Your task to perform on an android device: turn on sleep mode Image 0: 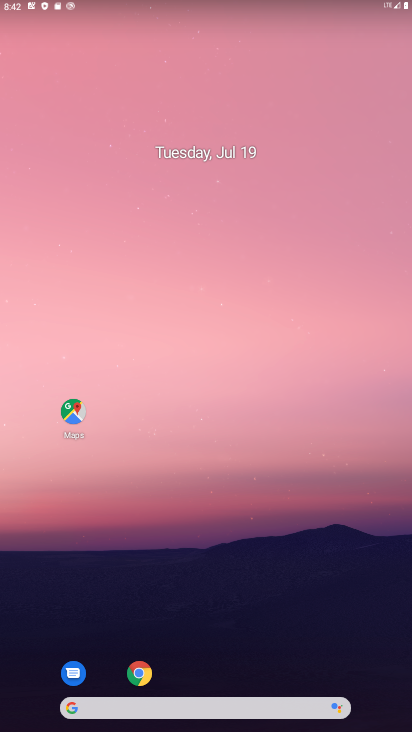
Step 0: drag from (330, 665) to (200, 24)
Your task to perform on an android device: turn on sleep mode Image 1: 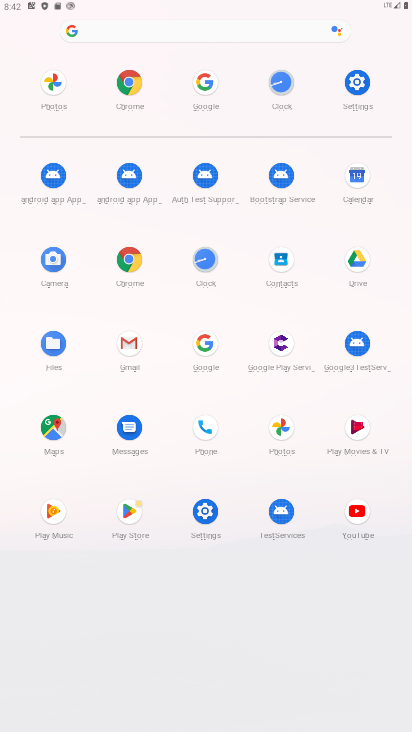
Step 1: press home button
Your task to perform on an android device: turn on sleep mode Image 2: 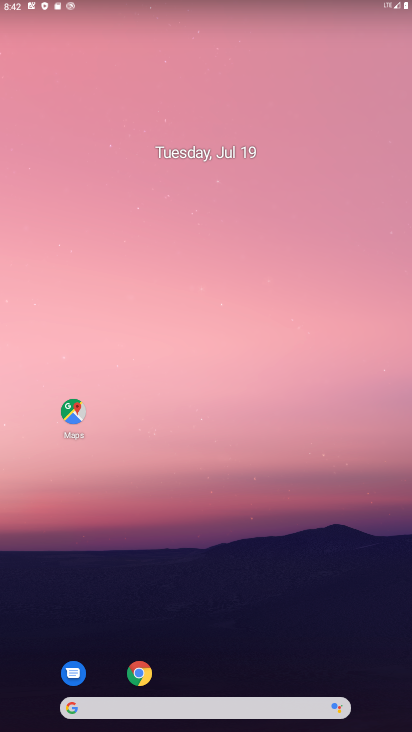
Step 2: drag from (387, 671) to (226, 76)
Your task to perform on an android device: turn on sleep mode Image 3: 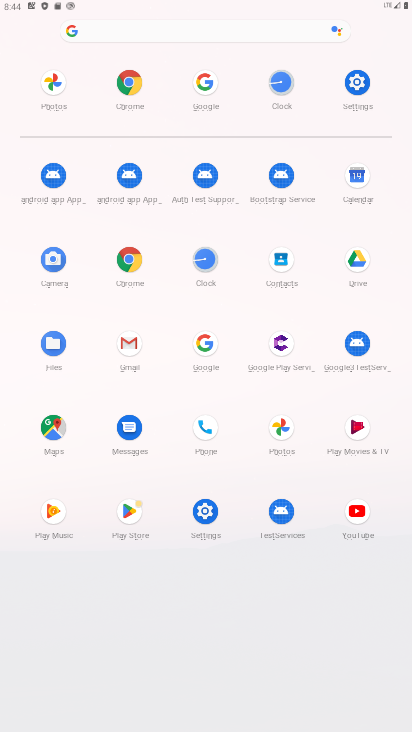
Step 3: click (210, 515)
Your task to perform on an android device: turn on sleep mode Image 4: 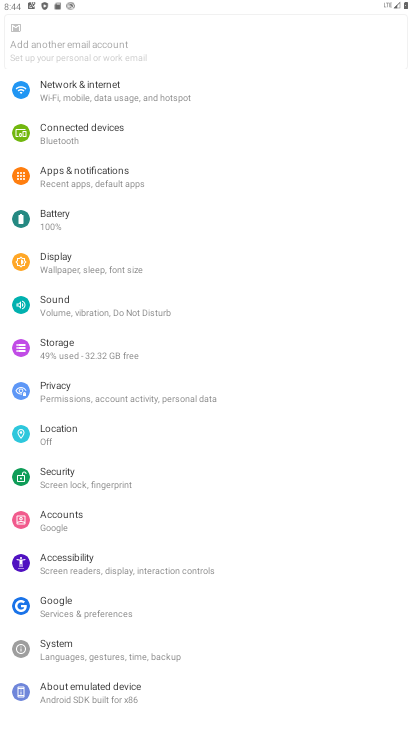
Step 4: task complete